Your task to perform on an android device: Open Chrome and go to the settings page Image 0: 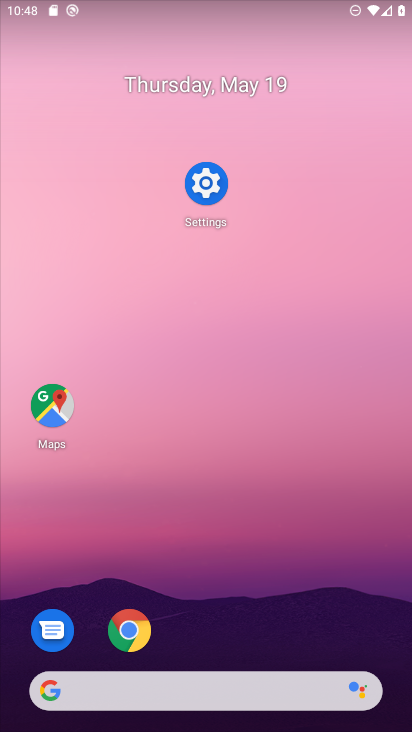
Step 0: drag from (251, 609) to (79, 0)
Your task to perform on an android device: Open Chrome and go to the settings page Image 1: 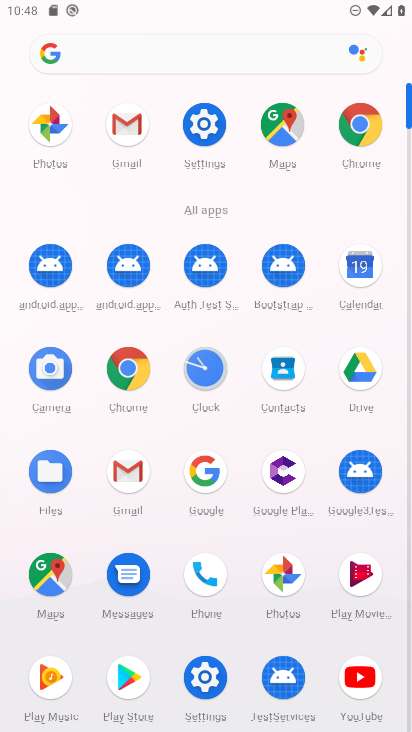
Step 1: click (206, 133)
Your task to perform on an android device: Open Chrome and go to the settings page Image 2: 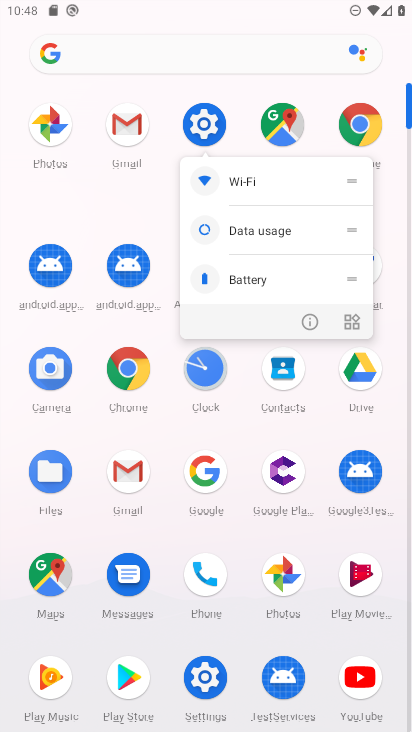
Step 2: click (207, 131)
Your task to perform on an android device: Open Chrome and go to the settings page Image 3: 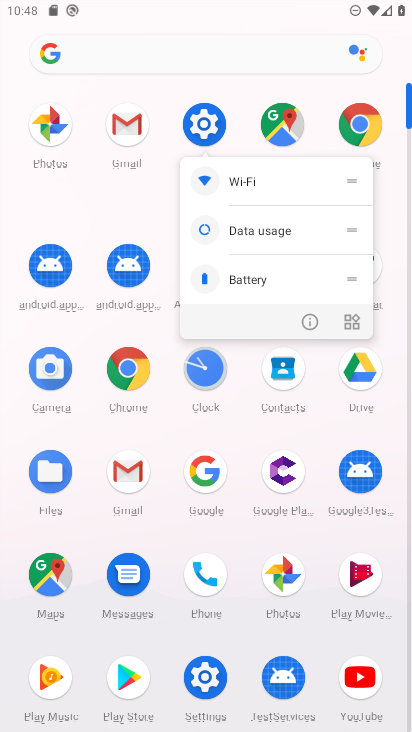
Step 3: click (219, 123)
Your task to perform on an android device: Open Chrome and go to the settings page Image 4: 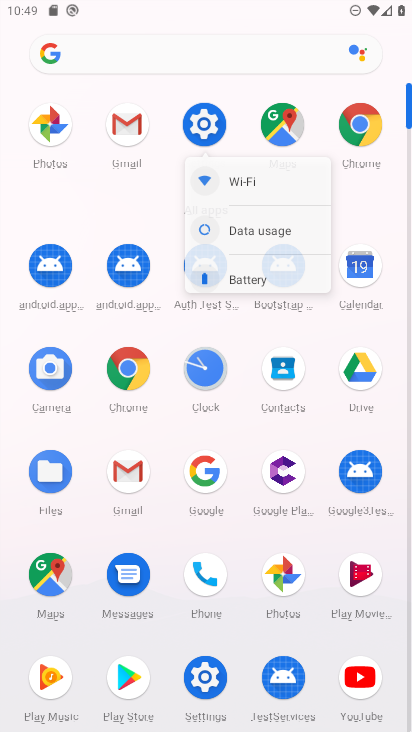
Step 4: click (219, 123)
Your task to perform on an android device: Open Chrome and go to the settings page Image 5: 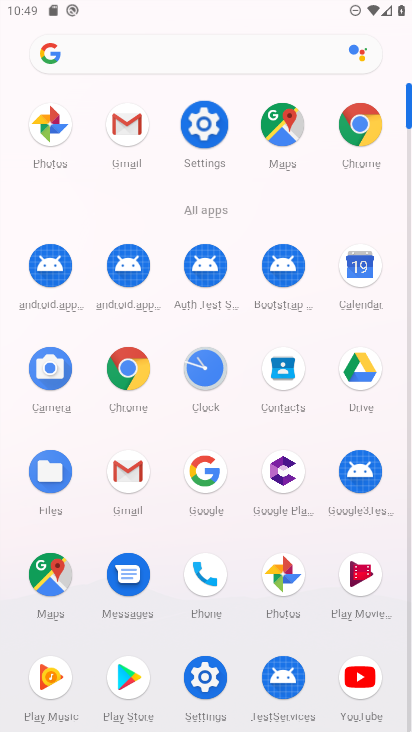
Step 5: click (219, 123)
Your task to perform on an android device: Open Chrome and go to the settings page Image 6: 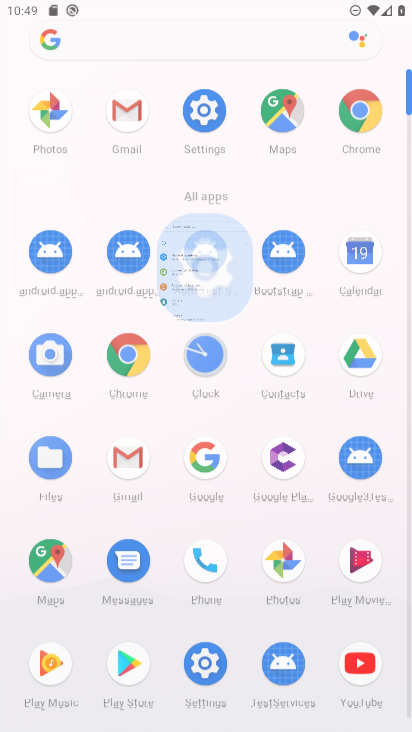
Step 6: click (219, 123)
Your task to perform on an android device: Open Chrome and go to the settings page Image 7: 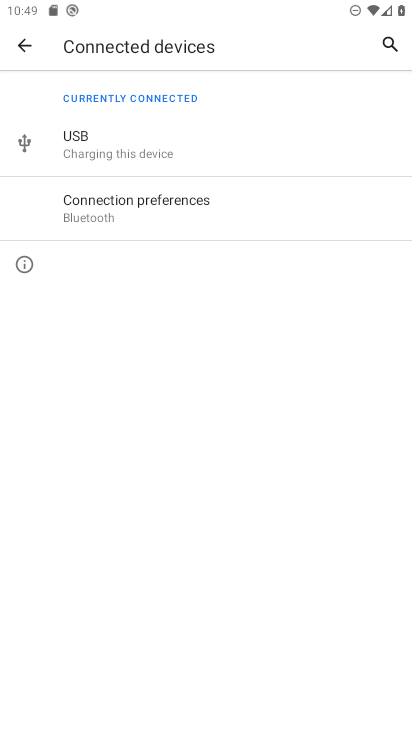
Step 7: click (24, 44)
Your task to perform on an android device: Open Chrome and go to the settings page Image 8: 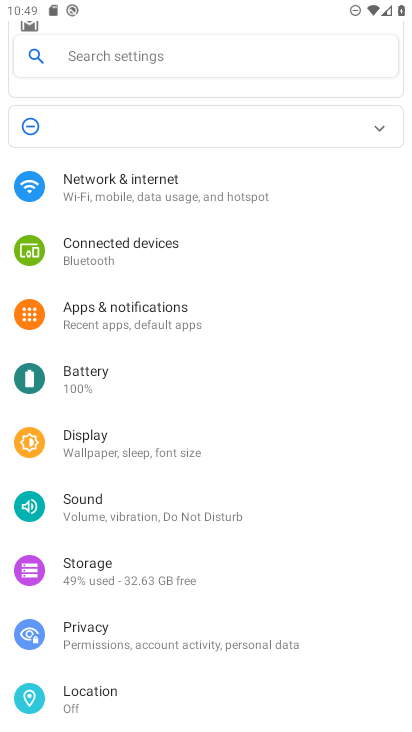
Step 8: press back button
Your task to perform on an android device: Open Chrome and go to the settings page Image 9: 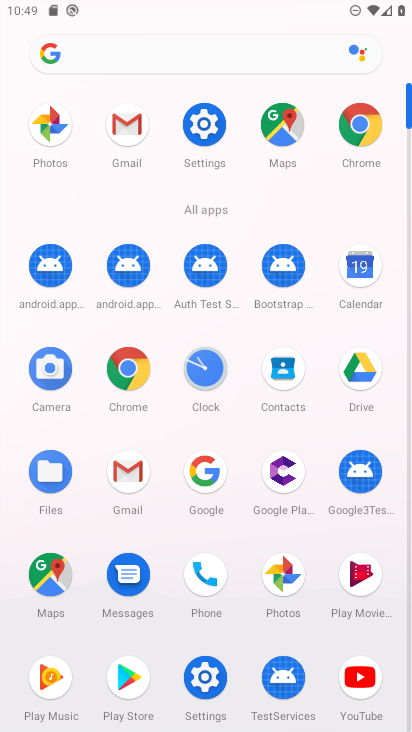
Step 9: press home button
Your task to perform on an android device: Open Chrome and go to the settings page Image 10: 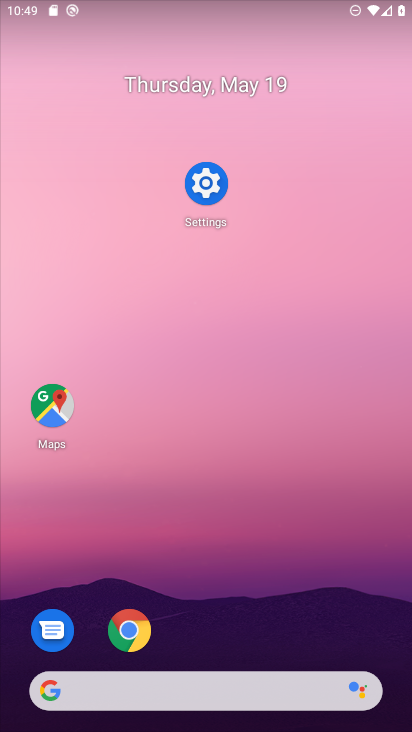
Step 10: drag from (243, 625) to (156, 86)
Your task to perform on an android device: Open Chrome and go to the settings page Image 11: 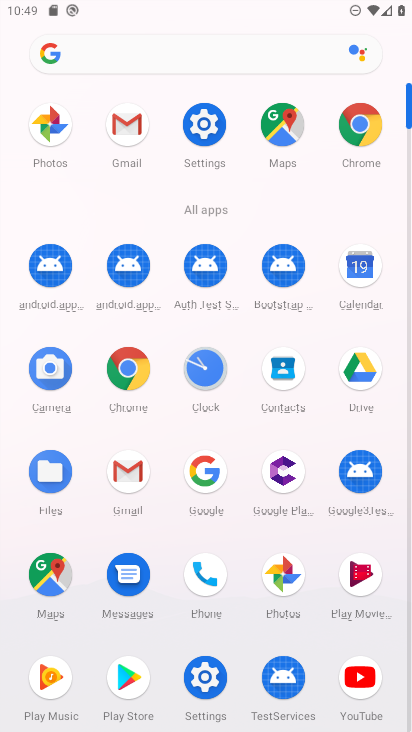
Step 11: click (356, 124)
Your task to perform on an android device: Open Chrome and go to the settings page Image 12: 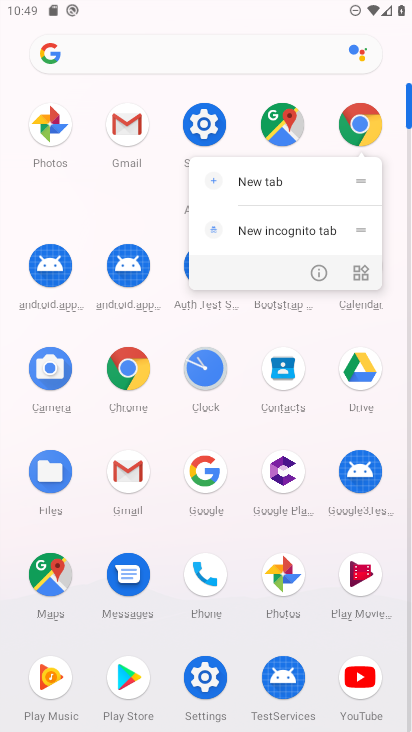
Step 12: click (355, 126)
Your task to perform on an android device: Open Chrome and go to the settings page Image 13: 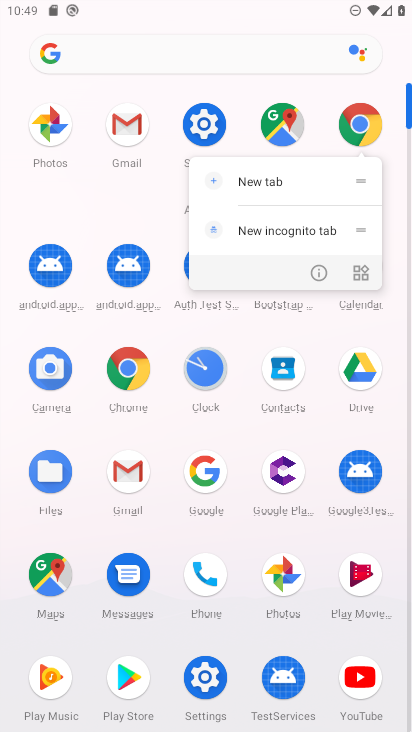
Step 13: click (355, 126)
Your task to perform on an android device: Open Chrome and go to the settings page Image 14: 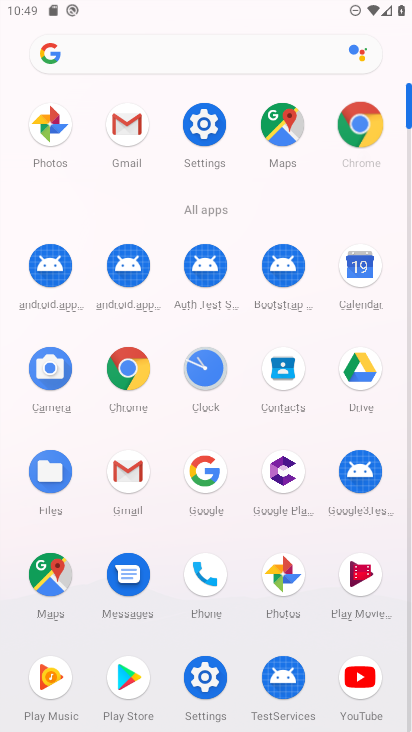
Step 14: click (355, 126)
Your task to perform on an android device: Open Chrome and go to the settings page Image 15: 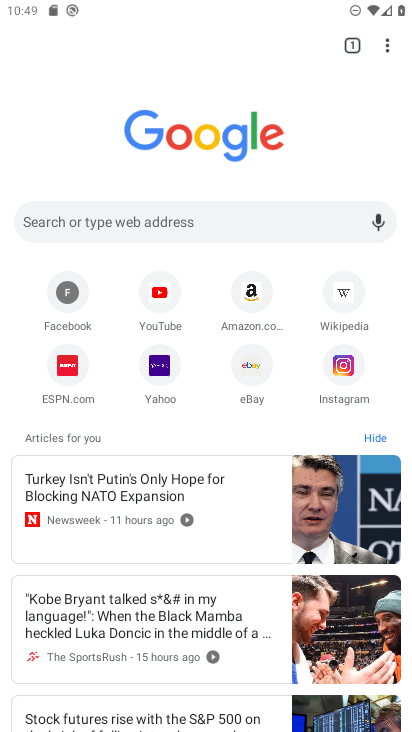
Step 15: drag from (384, 45) to (217, 385)
Your task to perform on an android device: Open Chrome and go to the settings page Image 16: 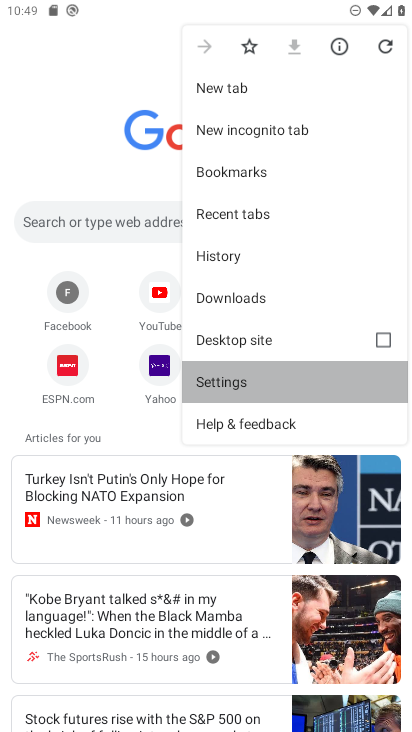
Step 16: click (217, 376)
Your task to perform on an android device: Open Chrome and go to the settings page Image 17: 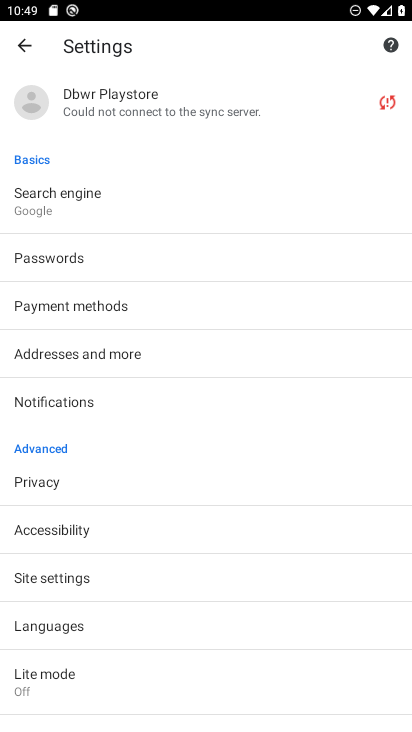
Step 17: task complete